Your task to perform on an android device: Show me the alarms in the clock app Image 0: 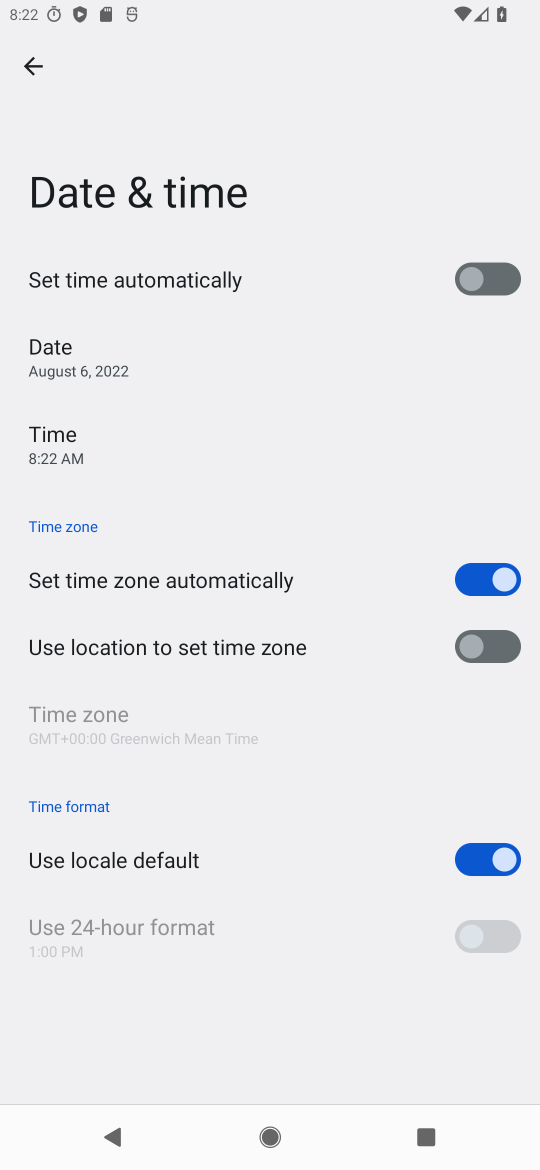
Step 0: press home button
Your task to perform on an android device: Show me the alarms in the clock app Image 1: 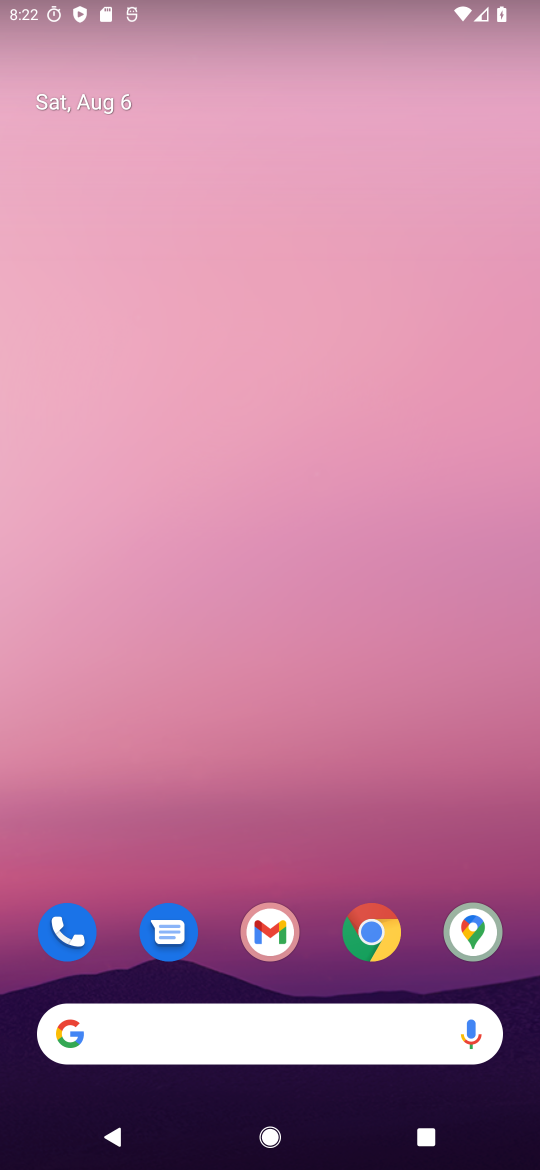
Step 1: drag from (279, 1015) to (437, 354)
Your task to perform on an android device: Show me the alarms in the clock app Image 2: 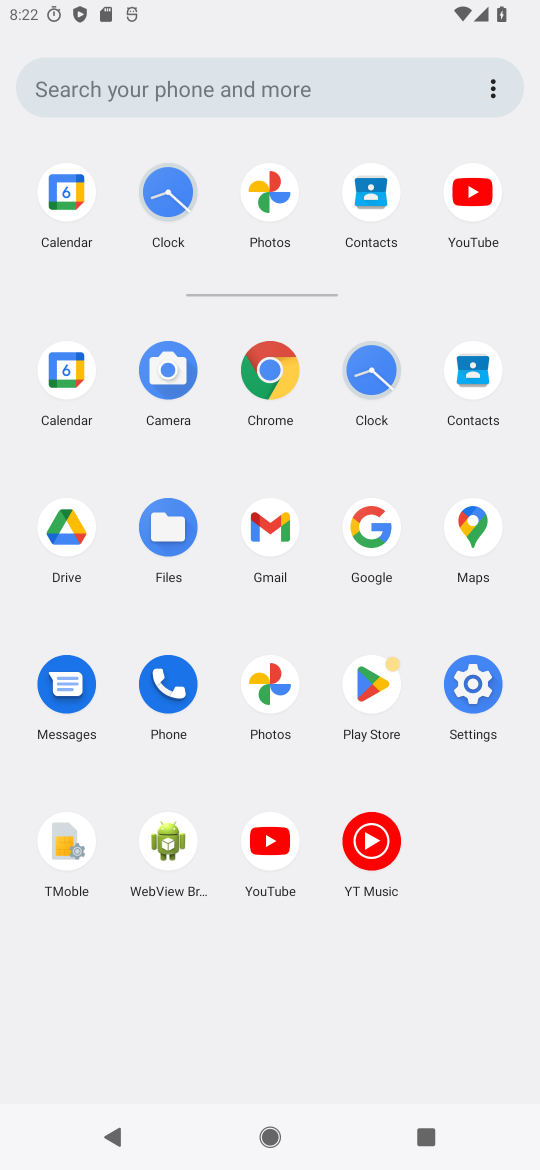
Step 2: click (173, 193)
Your task to perform on an android device: Show me the alarms in the clock app Image 3: 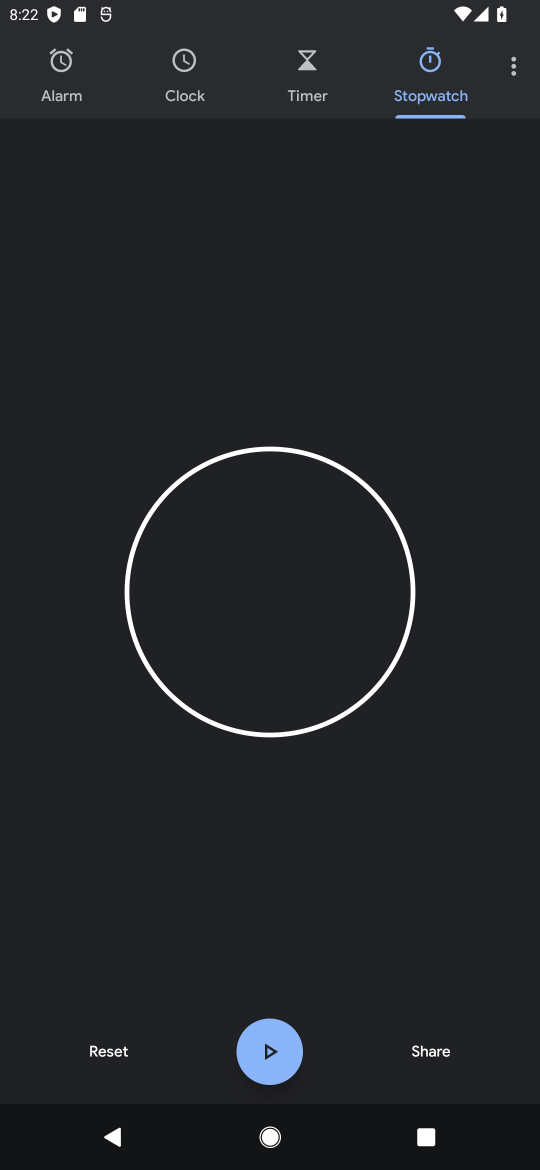
Step 3: click (52, 80)
Your task to perform on an android device: Show me the alarms in the clock app Image 4: 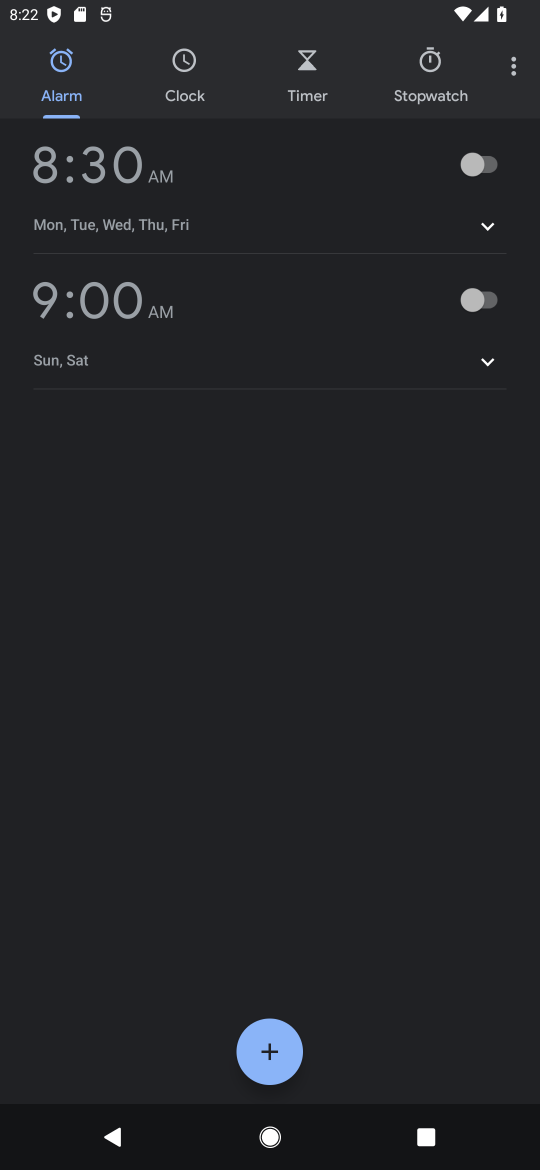
Step 4: task complete